Your task to perform on an android device: toggle notification dots Image 0: 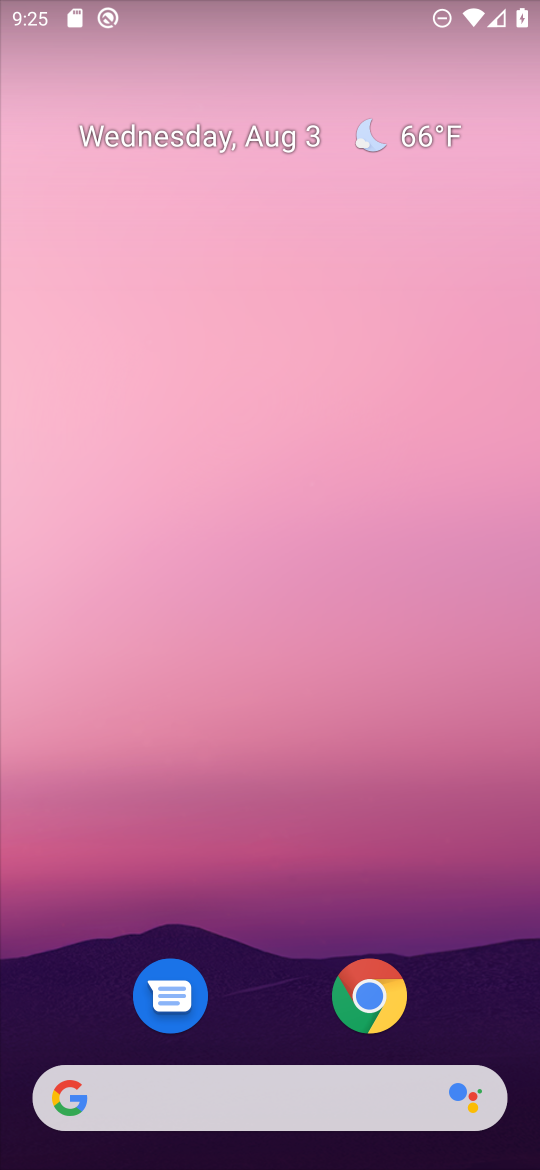
Step 0: drag from (286, 923) to (310, 36)
Your task to perform on an android device: toggle notification dots Image 1: 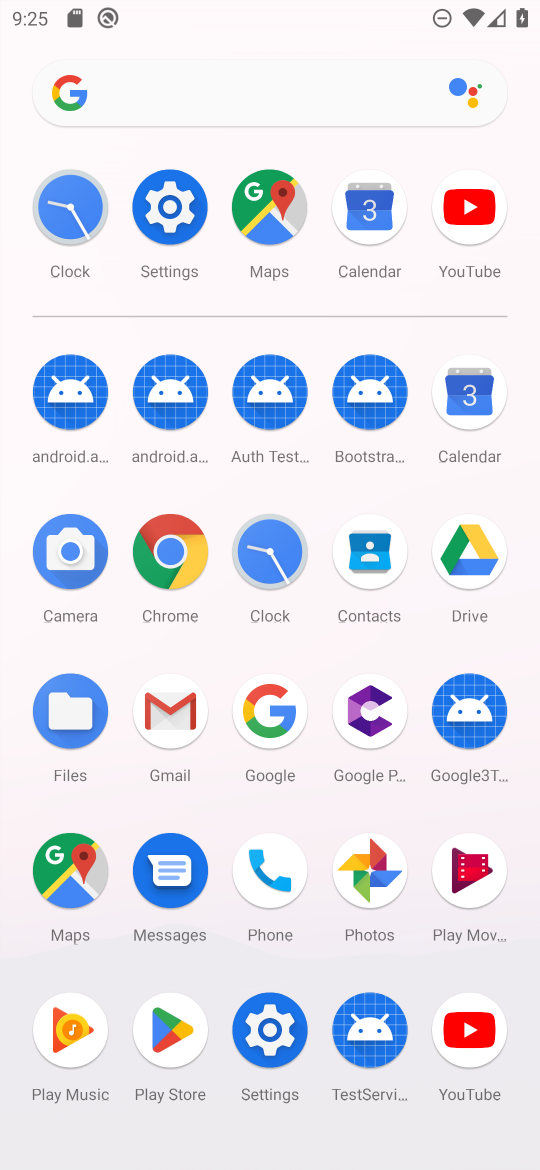
Step 1: click (172, 197)
Your task to perform on an android device: toggle notification dots Image 2: 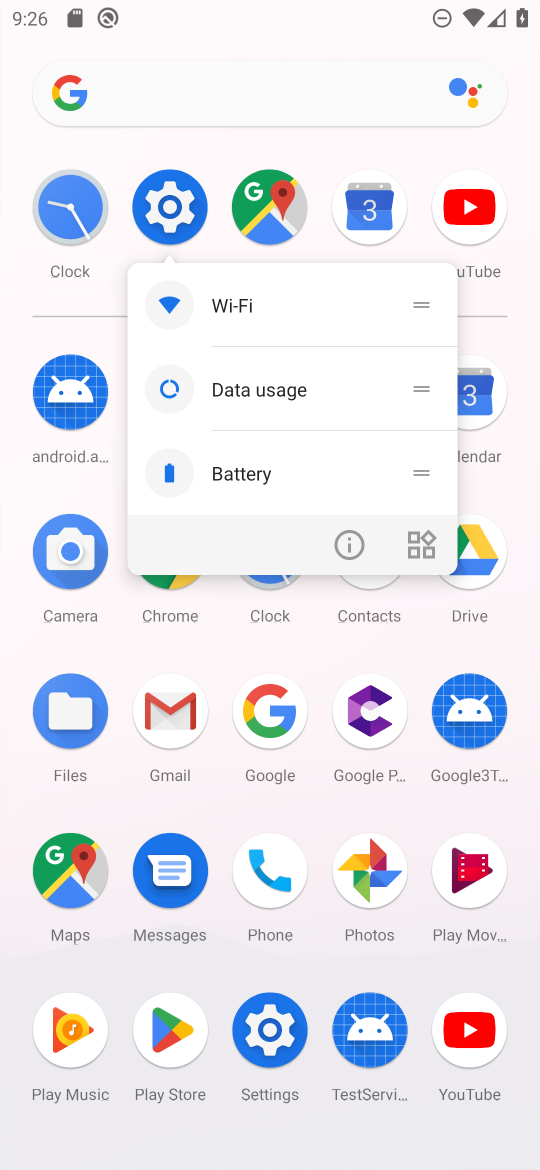
Step 2: click (169, 194)
Your task to perform on an android device: toggle notification dots Image 3: 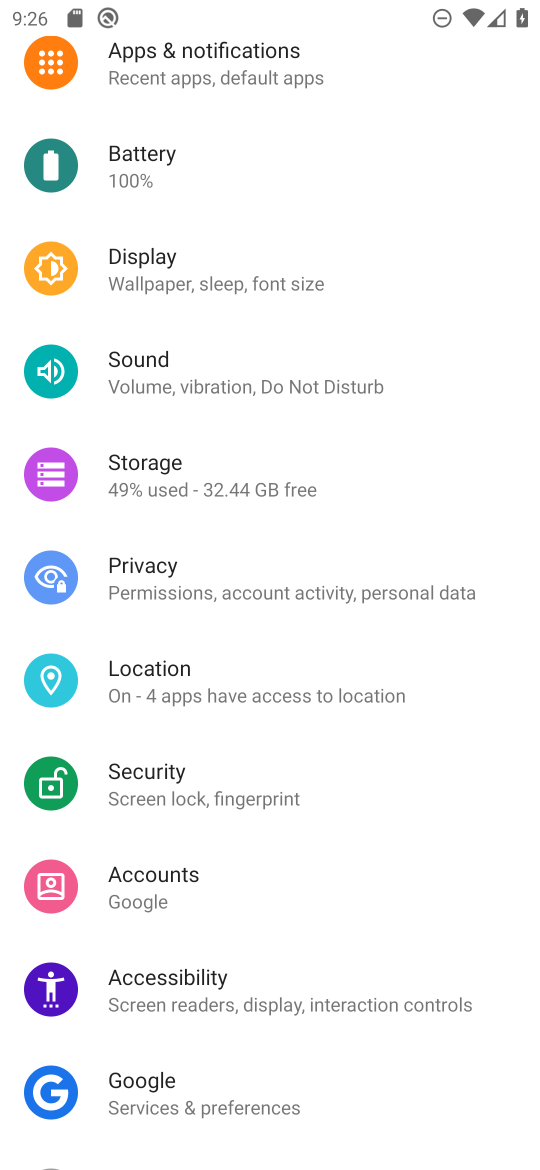
Step 3: drag from (299, 422) to (269, 1016)
Your task to perform on an android device: toggle notification dots Image 4: 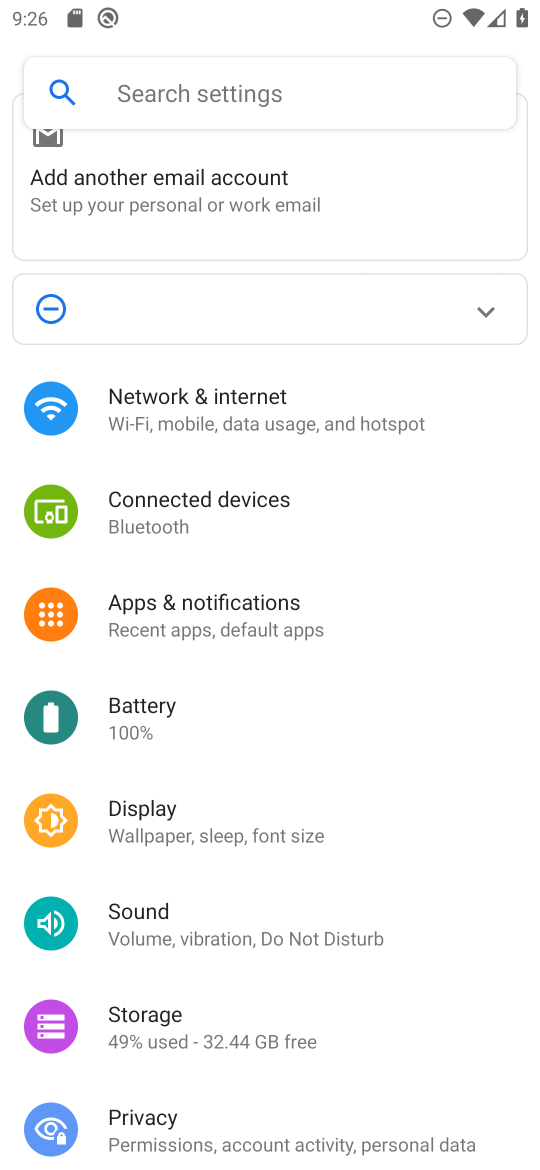
Step 4: click (208, 607)
Your task to perform on an android device: toggle notification dots Image 5: 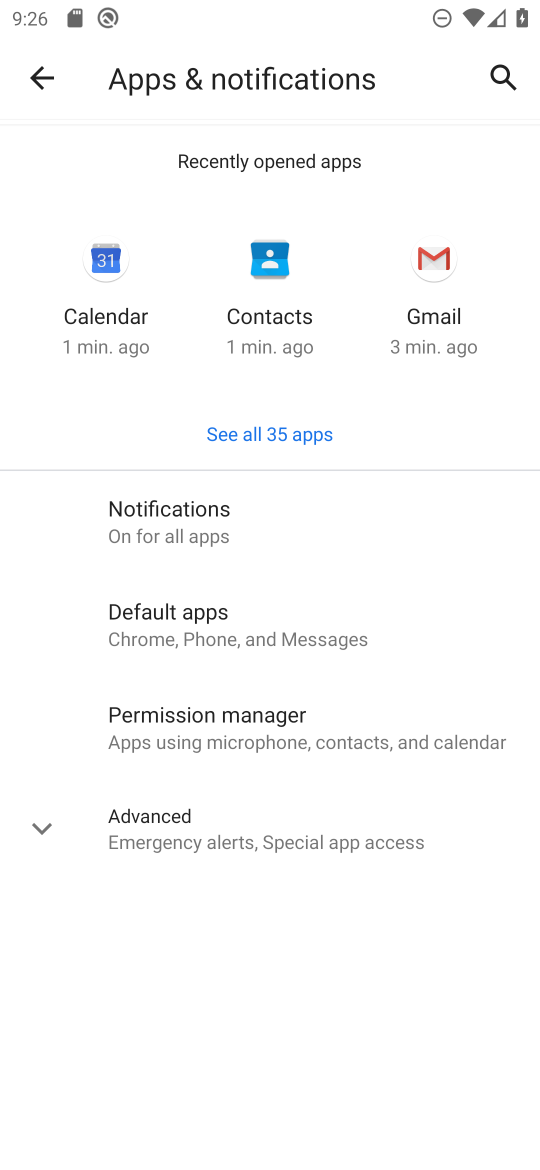
Step 5: click (157, 529)
Your task to perform on an android device: toggle notification dots Image 6: 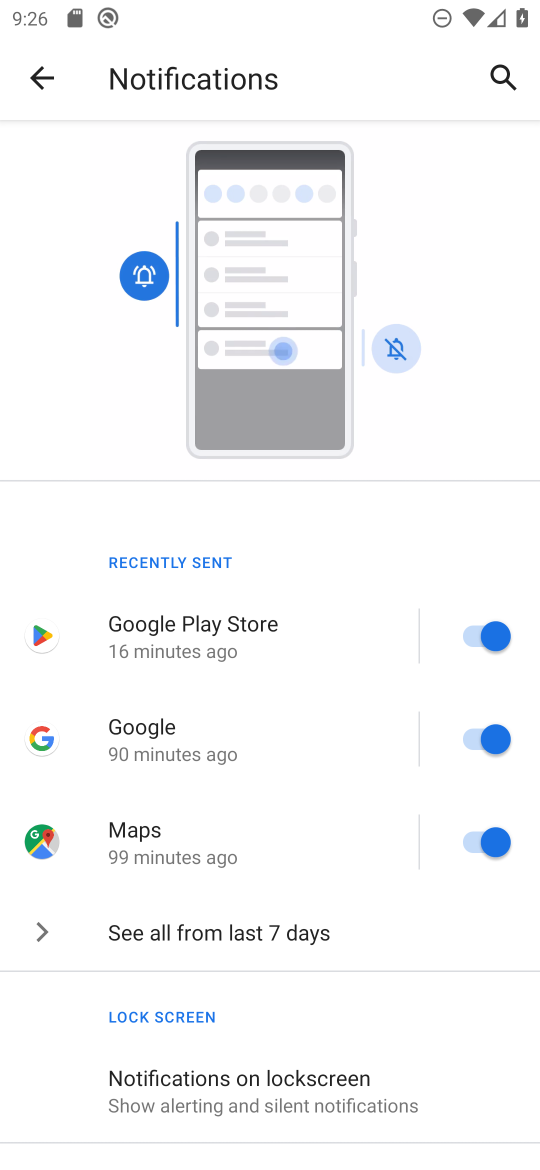
Step 6: drag from (335, 739) to (381, 53)
Your task to perform on an android device: toggle notification dots Image 7: 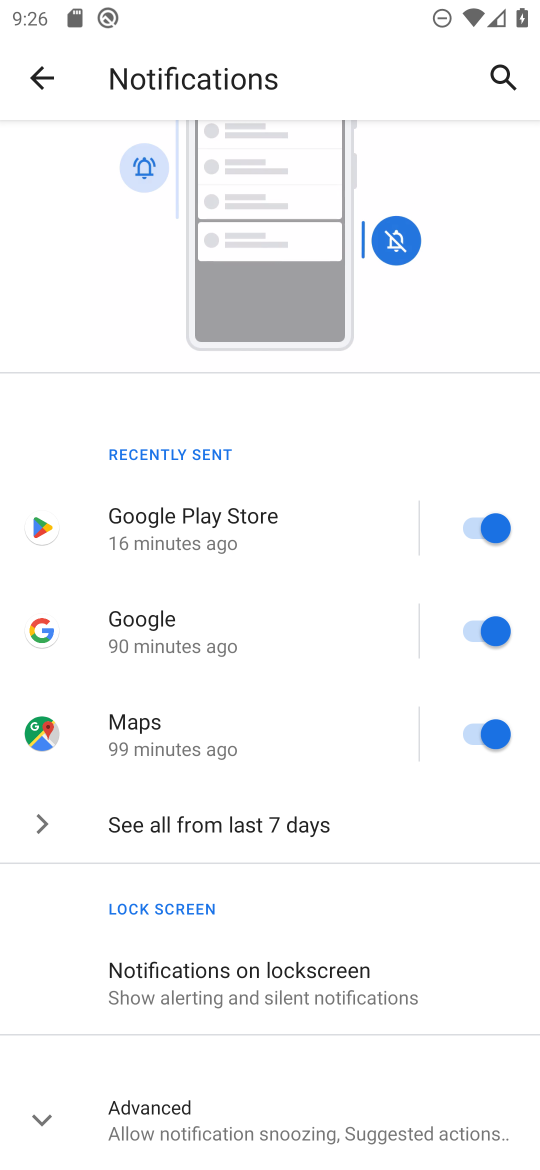
Step 7: click (43, 1124)
Your task to perform on an android device: toggle notification dots Image 8: 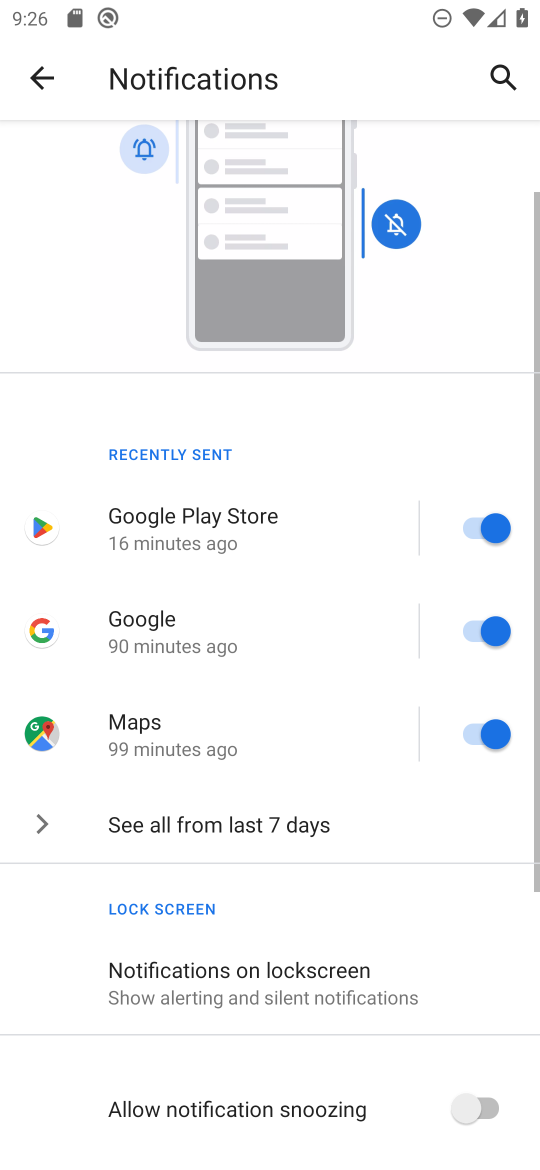
Step 8: drag from (362, 715) to (379, 17)
Your task to perform on an android device: toggle notification dots Image 9: 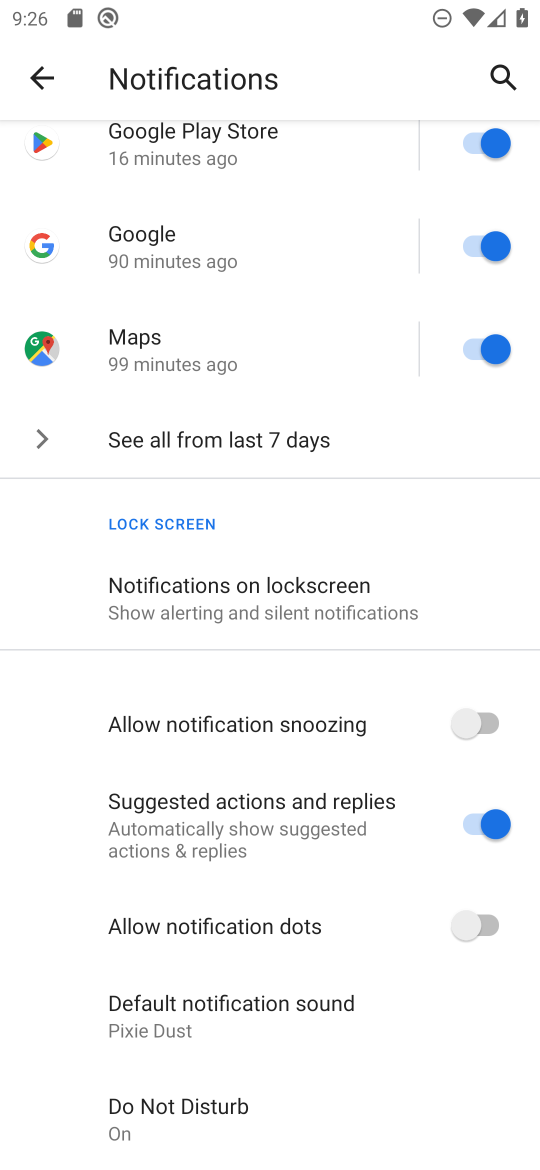
Step 9: click (473, 925)
Your task to perform on an android device: toggle notification dots Image 10: 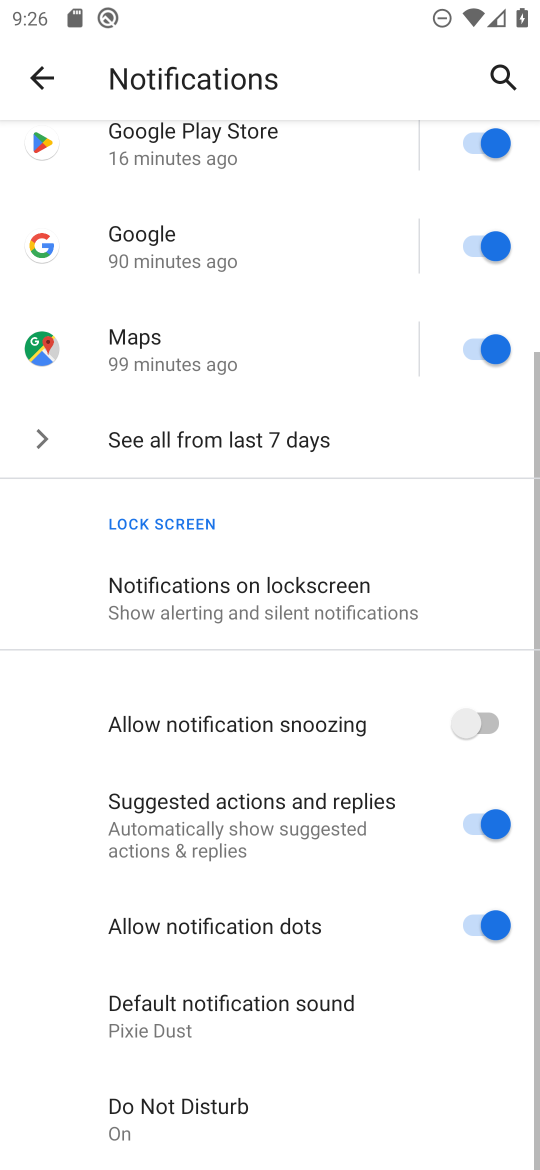
Step 10: task complete